Your task to perform on an android device: Open ESPN.com Image 0: 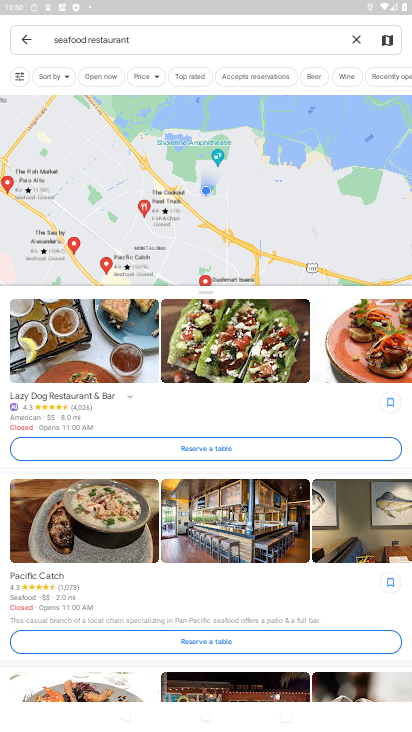
Step 0: press back button
Your task to perform on an android device: Open ESPN.com Image 1: 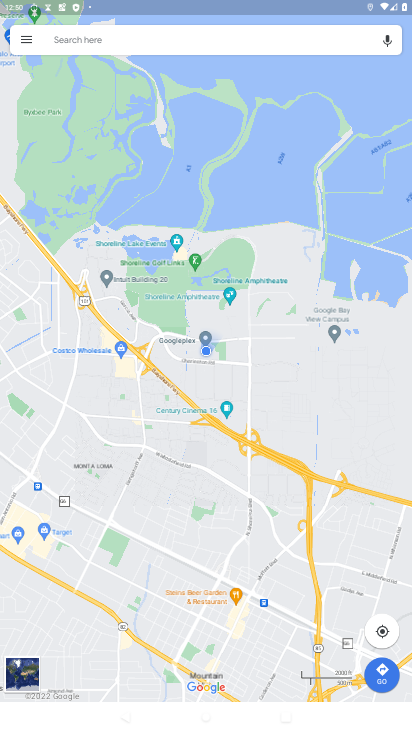
Step 1: press home button
Your task to perform on an android device: Open ESPN.com Image 2: 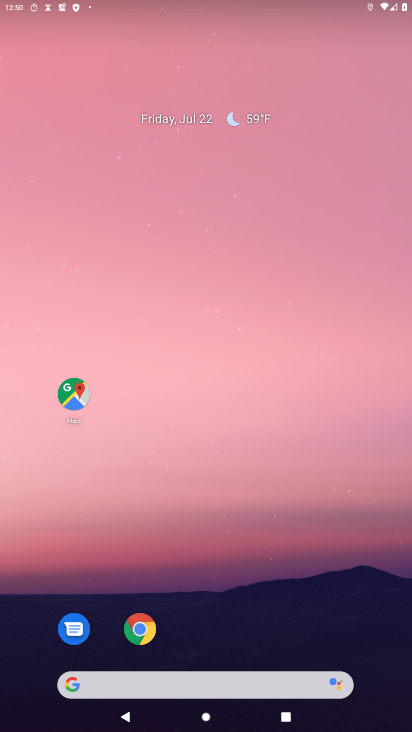
Step 2: drag from (217, 617) to (371, 438)
Your task to perform on an android device: Open ESPN.com Image 3: 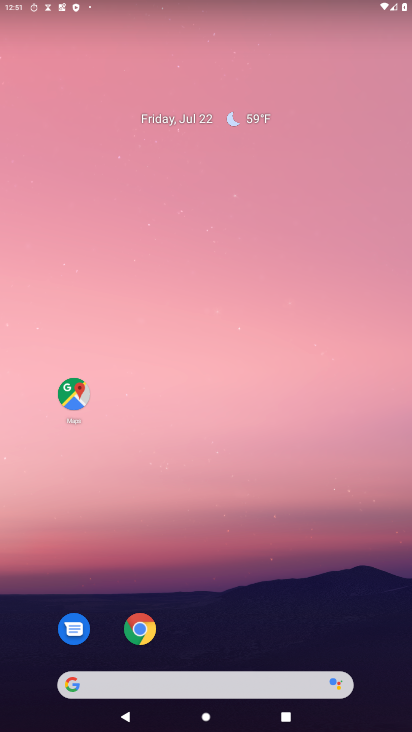
Step 3: click (130, 347)
Your task to perform on an android device: Open ESPN.com Image 4: 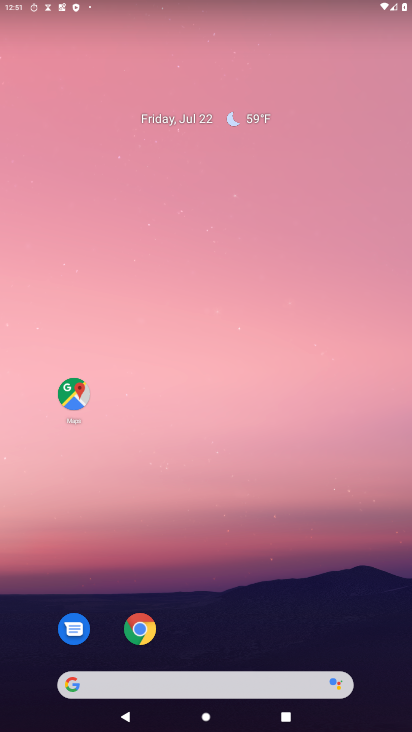
Step 4: drag from (198, 655) to (174, 7)
Your task to perform on an android device: Open ESPN.com Image 5: 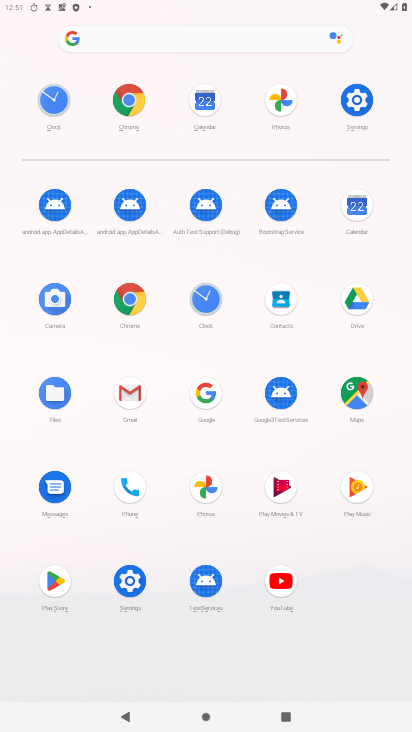
Step 5: click (132, 307)
Your task to perform on an android device: Open ESPN.com Image 6: 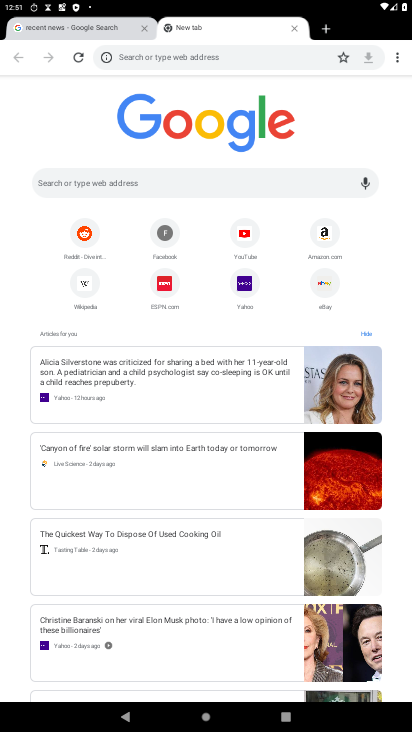
Step 6: click (165, 287)
Your task to perform on an android device: Open ESPN.com Image 7: 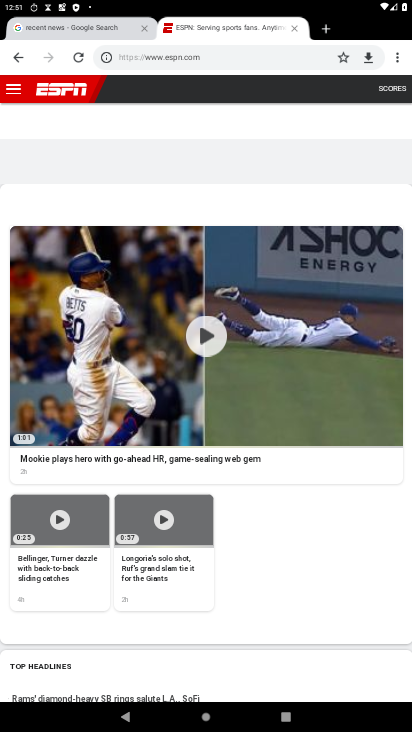
Step 7: task complete